Your task to perform on an android device: add a contact Image 0: 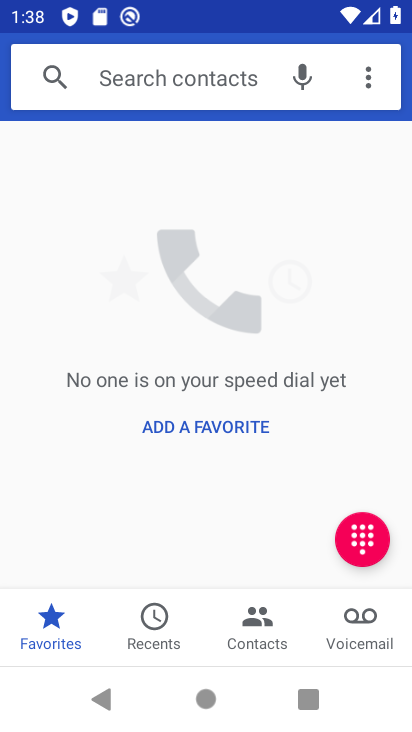
Step 0: press home button
Your task to perform on an android device: add a contact Image 1: 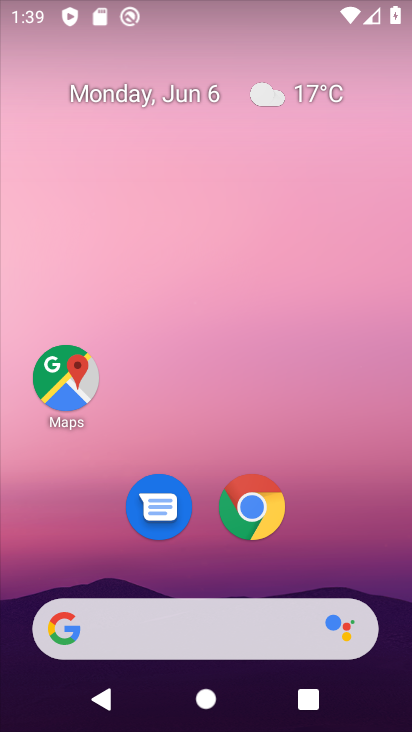
Step 1: drag from (386, 604) to (347, 5)
Your task to perform on an android device: add a contact Image 2: 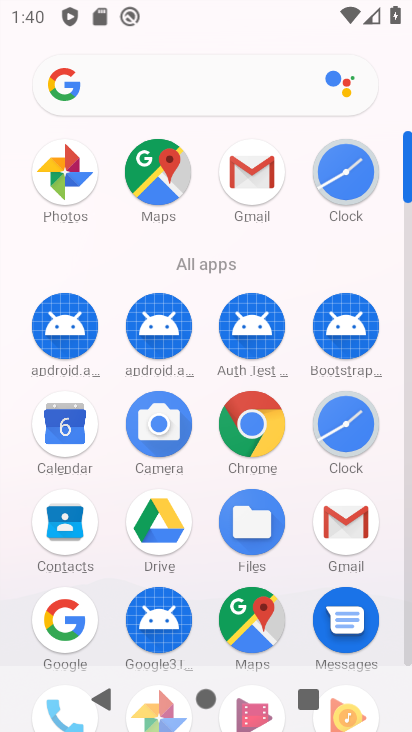
Step 2: click (53, 536)
Your task to perform on an android device: add a contact Image 3: 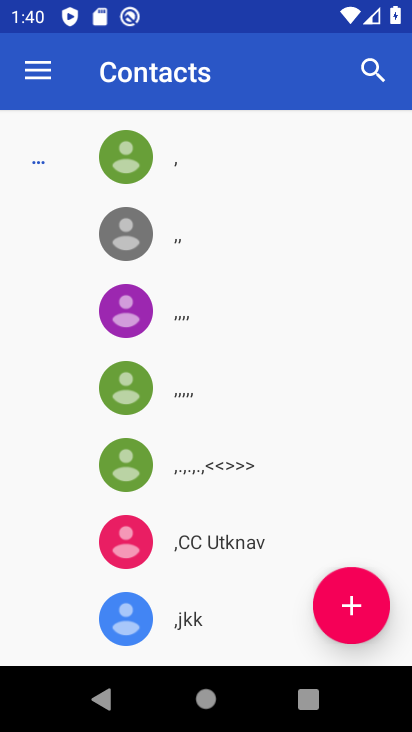
Step 3: click (336, 601)
Your task to perform on an android device: add a contact Image 4: 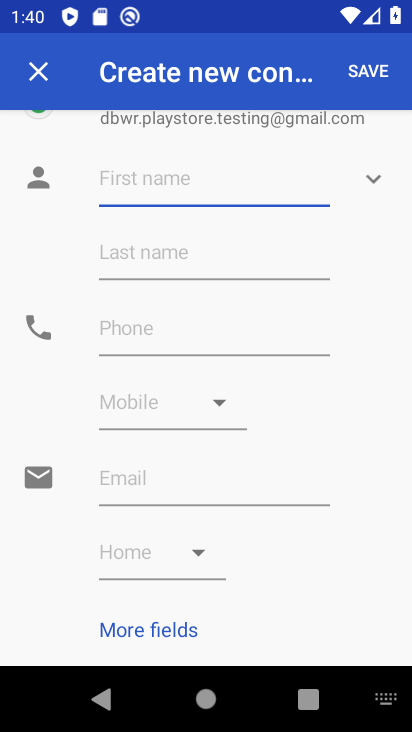
Step 4: type "yfgyfkhs"
Your task to perform on an android device: add a contact Image 5: 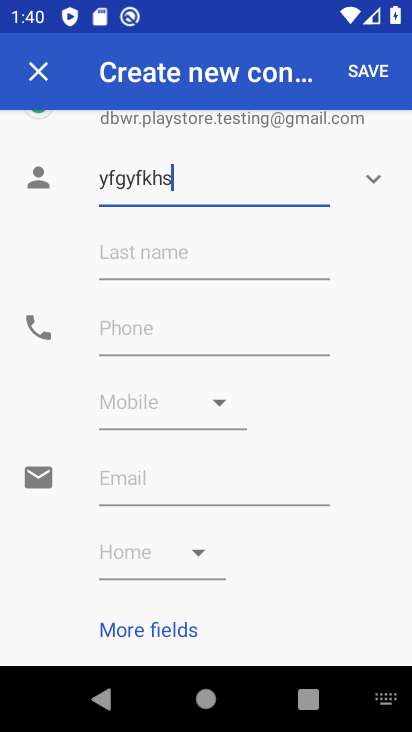
Step 5: click (181, 265)
Your task to perform on an android device: add a contact Image 6: 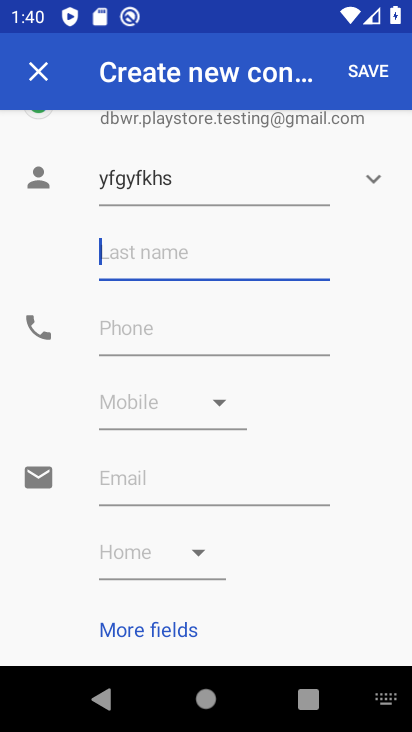
Step 6: type "hfhjbhjbcdjh"
Your task to perform on an android device: add a contact Image 7: 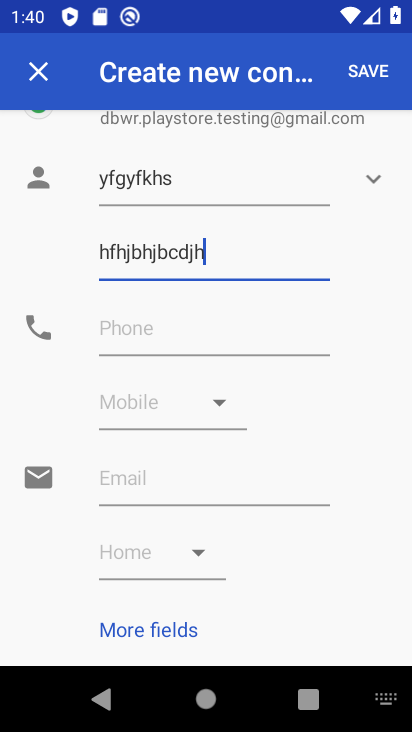
Step 7: click (167, 329)
Your task to perform on an android device: add a contact Image 8: 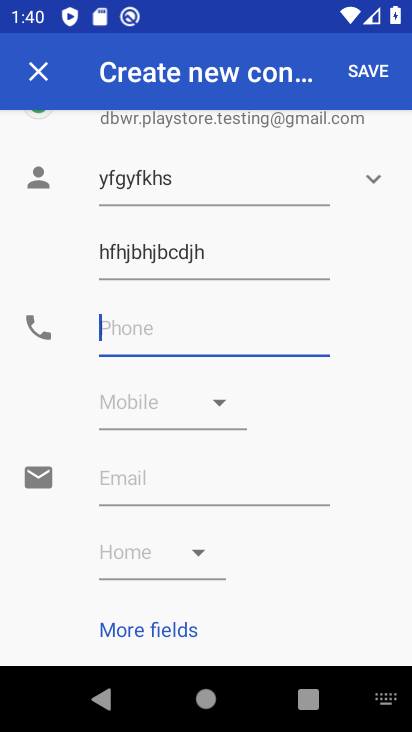
Step 8: type "37746464346763"
Your task to perform on an android device: add a contact Image 9: 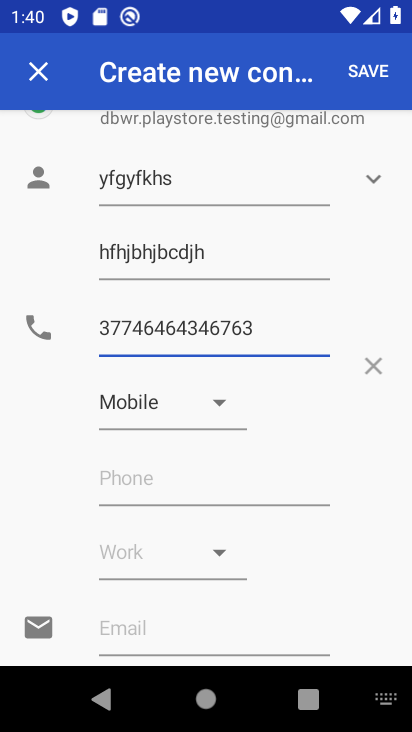
Step 9: click (362, 74)
Your task to perform on an android device: add a contact Image 10: 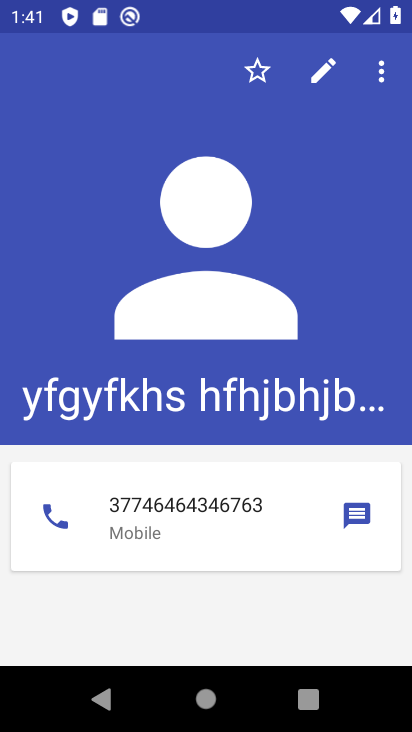
Step 10: task complete